Your task to perform on an android device: all mails in gmail Image 0: 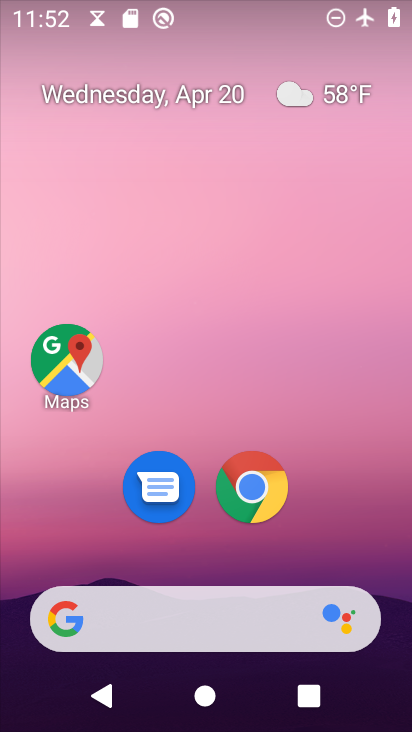
Step 0: drag from (350, 507) to (211, 2)
Your task to perform on an android device: all mails in gmail Image 1: 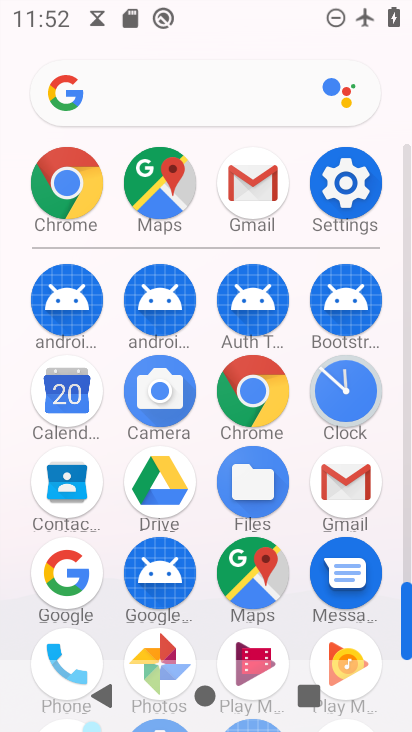
Step 1: click (252, 175)
Your task to perform on an android device: all mails in gmail Image 2: 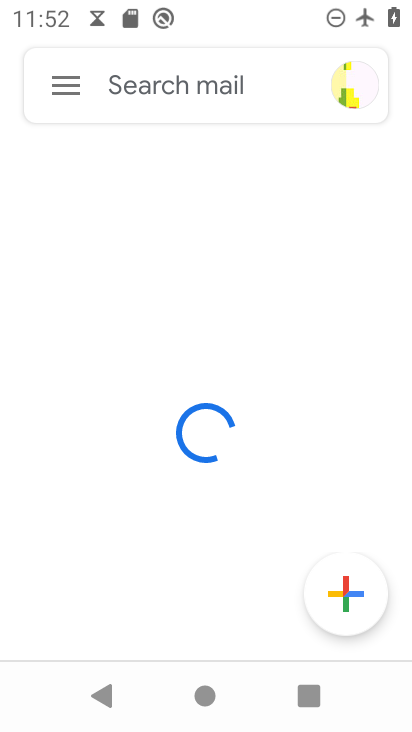
Step 2: click (68, 83)
Your task to perform on an android device: all mails in gmail Image 3: 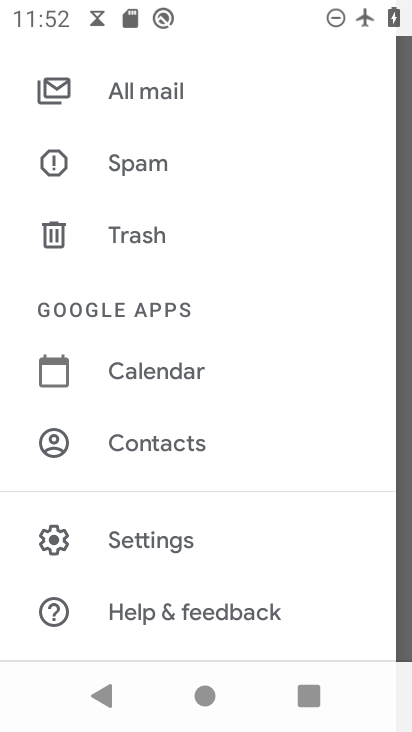
Step 3: click (138, 87)
Your task to perform on an android device: all mails in gmail Image 4: 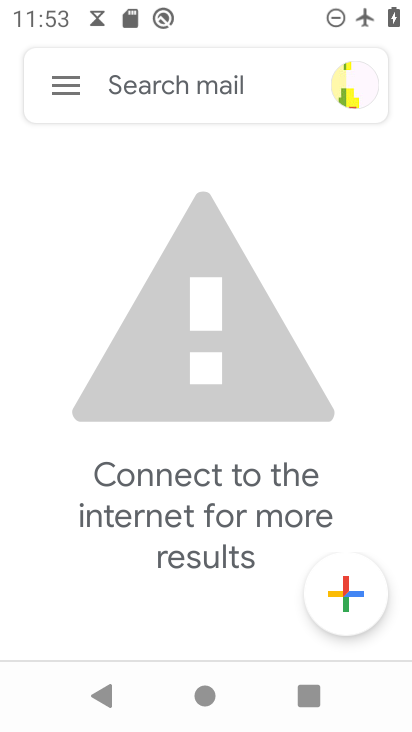
Step 4: task complete